Your task to perform on an android device: open a new tab in the chrome app Image 0: 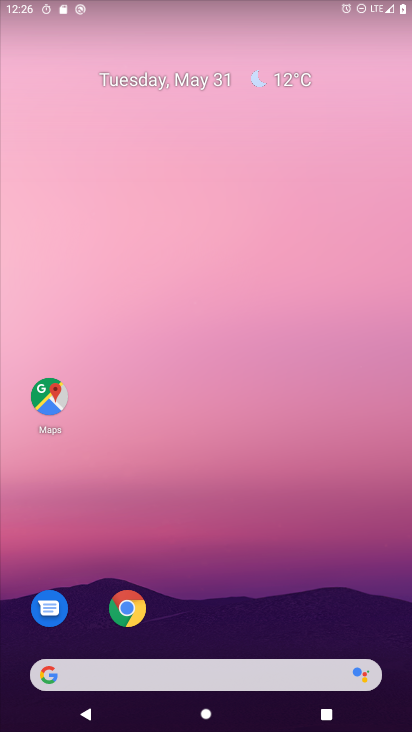
Step 0: click (129, 612)
Your task to perform on an android device: open a new tab in the chrome app Image 1: 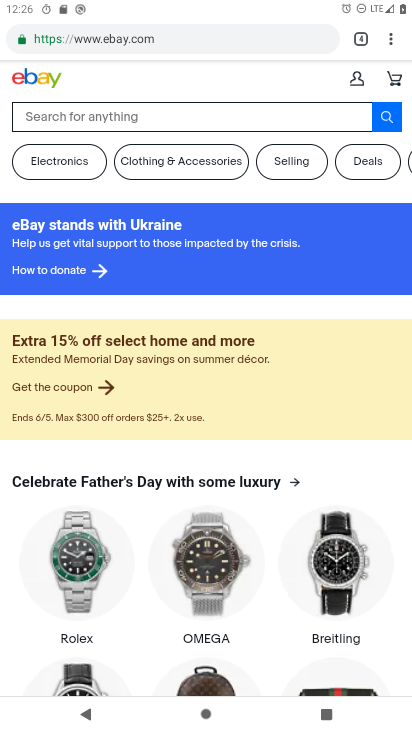
Step 1: click (391, 37)
Your task to perform on an android device: open a new tab in the chrome app Image 2: 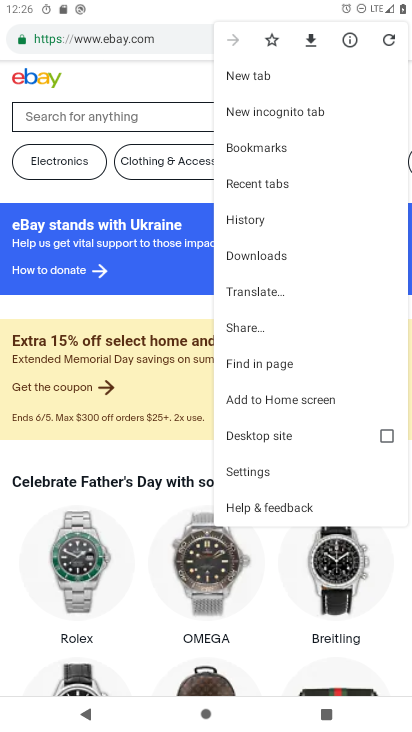
Step 2: click (239, 77)
Your task to perform on an android device: open a new tab in the chrome app Image 3: 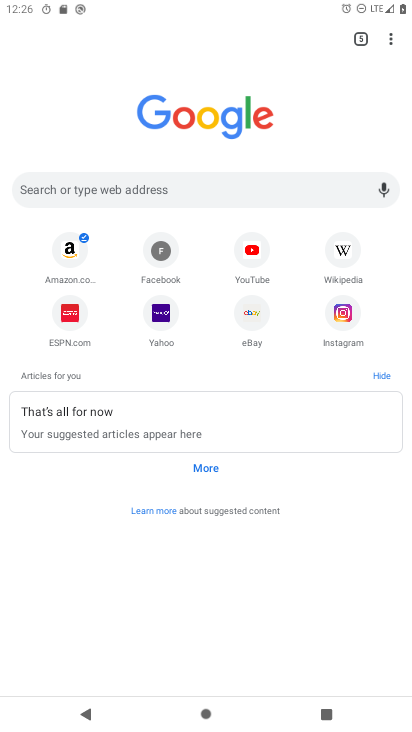
Step 3: task complete